Your task to perform on an android device: What's the weather? Image 0: 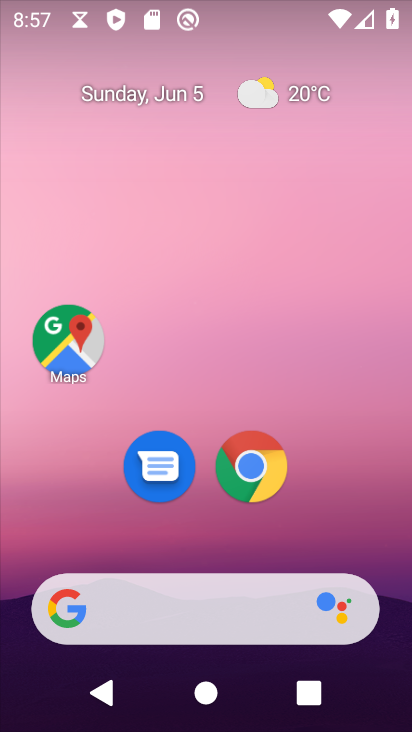
Step 0: click (162, 623)
Your task to perform on an android device: What's the weather? Image 1: 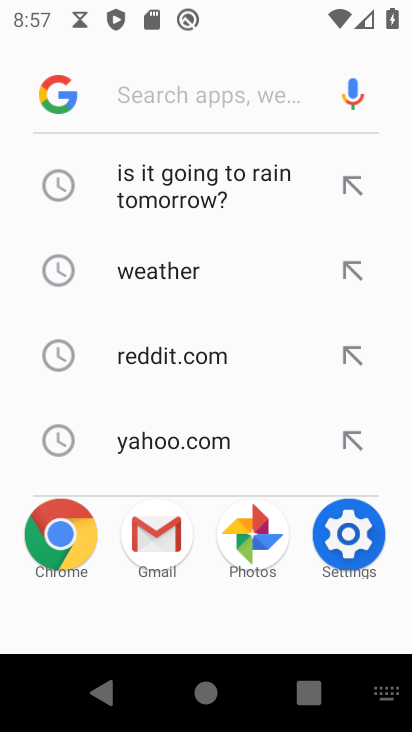
Step 1: click (154, 281)
Your task to perform on an android device: What's the weather? Image 2: 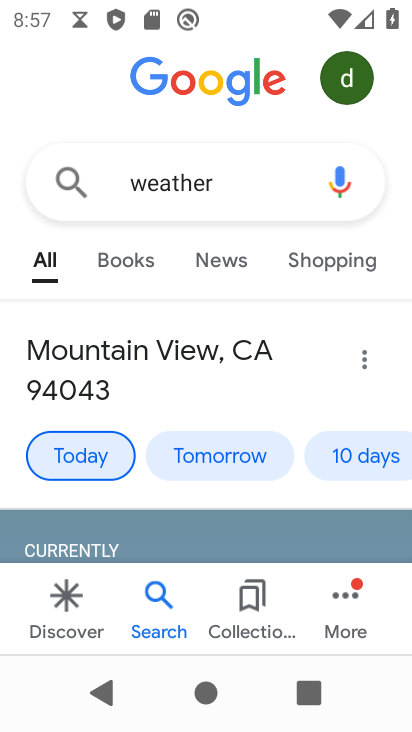
Step 2: task complete